Your task to perform on an android device: snooze an email in the gmail app Image 0: 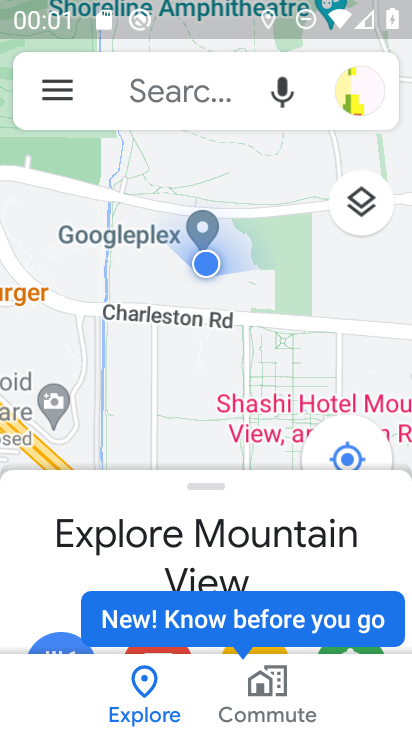
Step 0: press home button
Your task to perform on an android device: snooze an email in the gmail app Image 1: 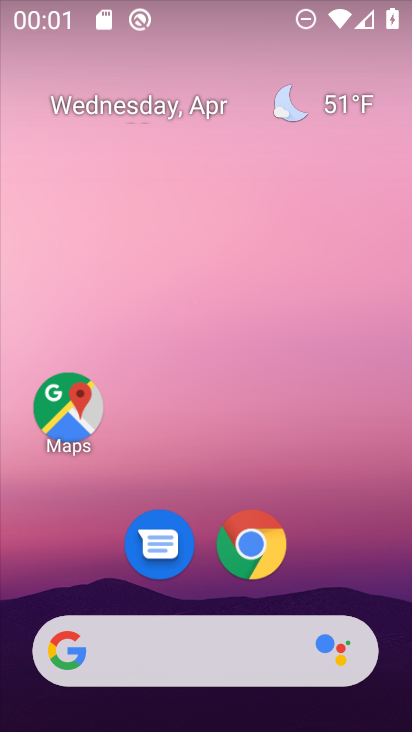
Step 1: drag from (349, 564) to (240, 32)
Your task to perform on an android device: snooze an email in the gmail app Image 2: 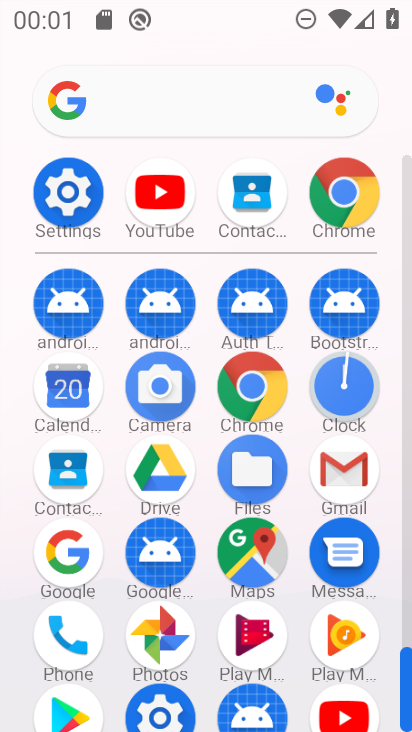
Step 2: click (330, 481)
Your task to perform on an android device: snooze an email in the gmail app Image 3: 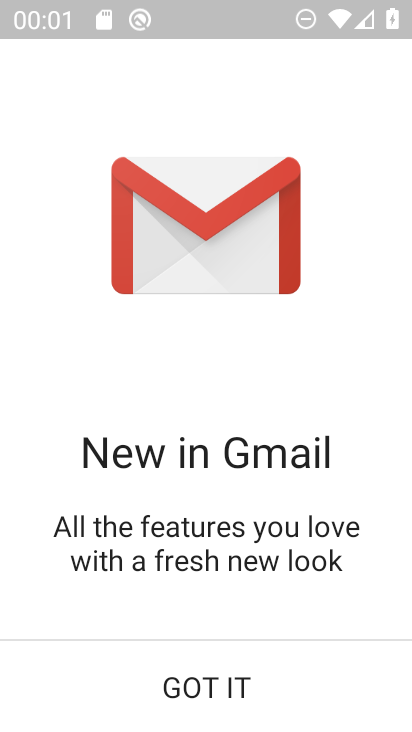
Step 3: click (262, 682)
Your task to perform on an android device: snooze an email in the gmail app Image 4: 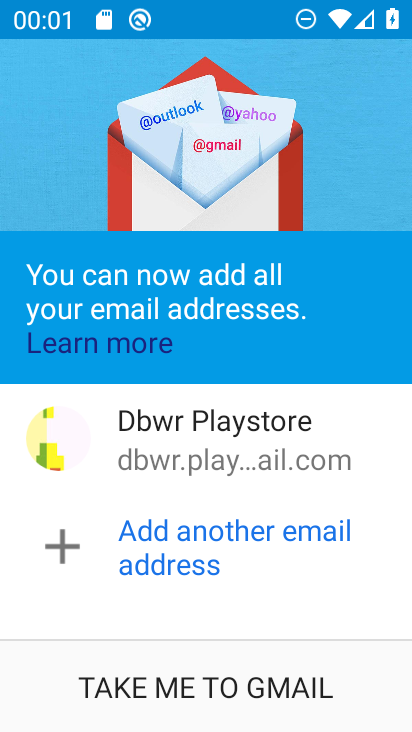
Step 4: click (263, 682)
Your task to perform on an android device: snooze an email in the gmail app Image 5: 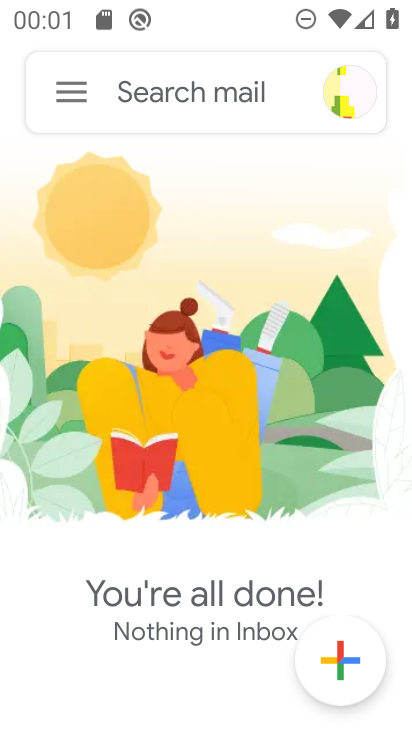
Step 5: click (72, 90)
Your task to perform on an android device: snooze an email in the gmail app Image 6: 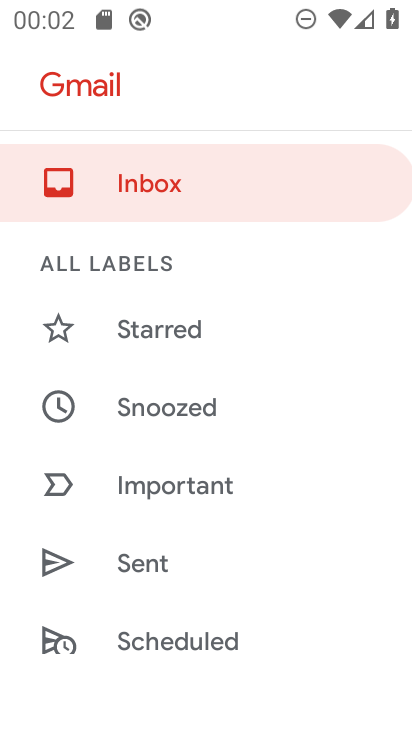
Step 6: drag from (317, 562) to (336, 360)
Your task to perform on an android device: snooze an email in the gmail app Image 7: 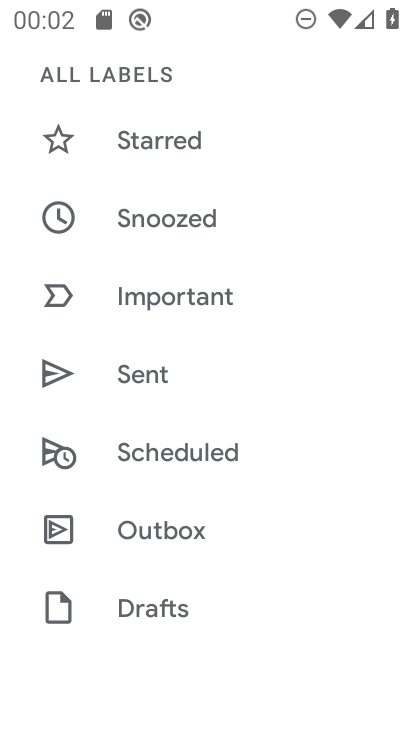
Step 7: drag from (302, 571) to (330, 364)
Your task to perform on an android device: snooze an email in the gmail app Image 8: 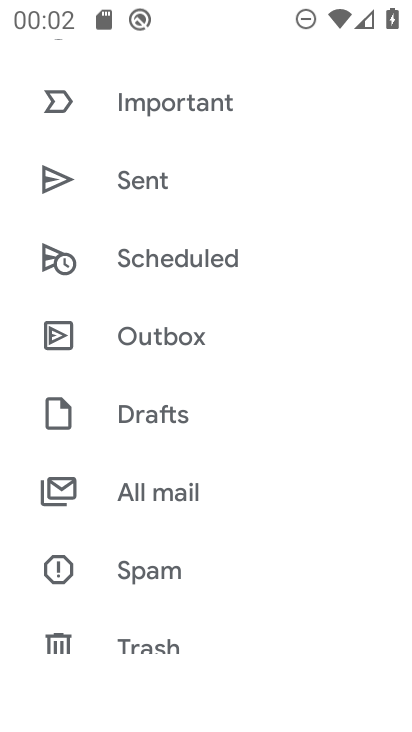
Step 8: drag from (275, 496) to (299, 307)
Your task to perform on an android device: snooze an email in the gmail app Image 9: 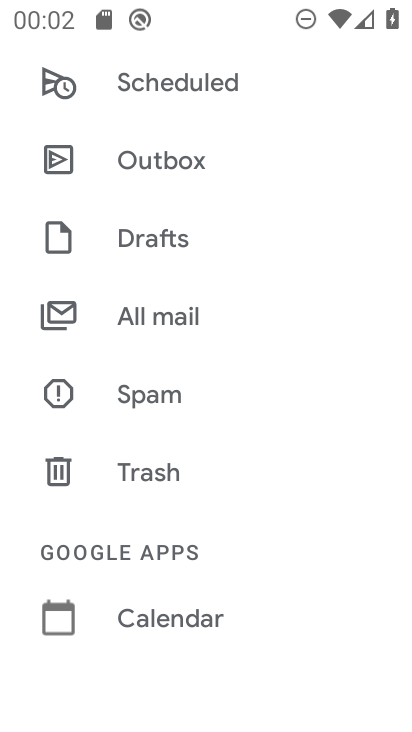
Step 9: drag from (336, 553) to (323, 288)
Your task to perform on an android device: snooze an email in the gmail app Image 10: 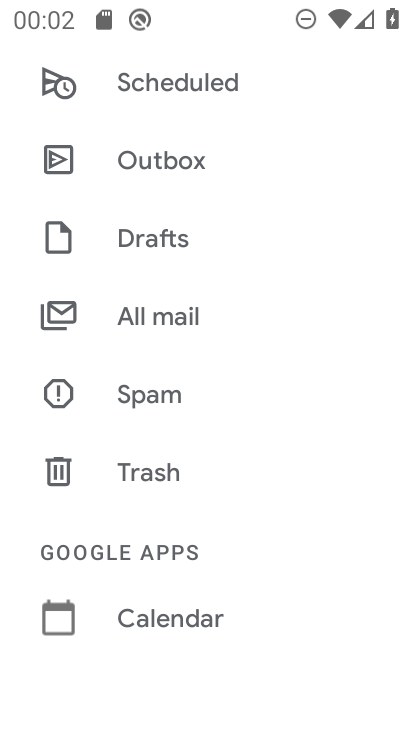
Step 10: drag from (333, 233) to (391, 505)
Your task to perform on an android device: snooze an email in the gmail app Image 11: 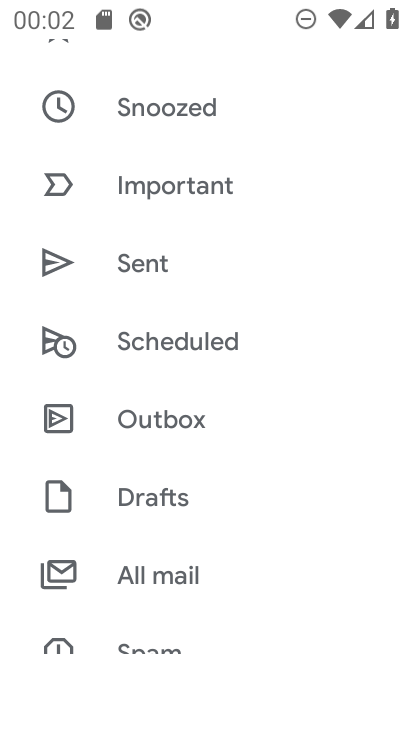
Step 11: drag from (362, 308) to (360, 514)
Your task to perform on an android device: snooze an email in the gmail app Image 12: 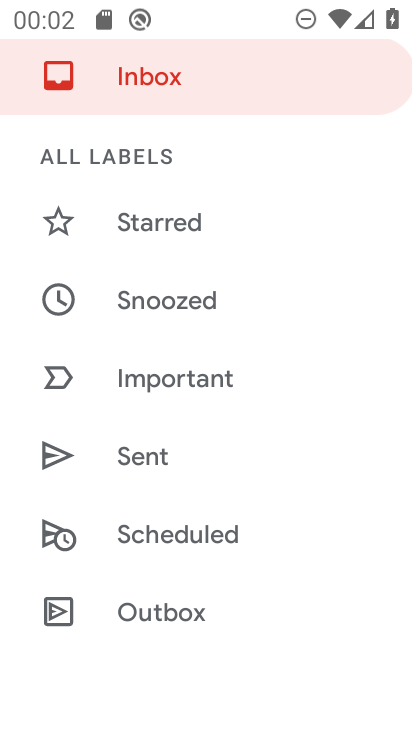
Step 12: drag from (328, 304) to (337, 464)
Your task to perform on an android device: snooze an email in the gmail app Image 13: 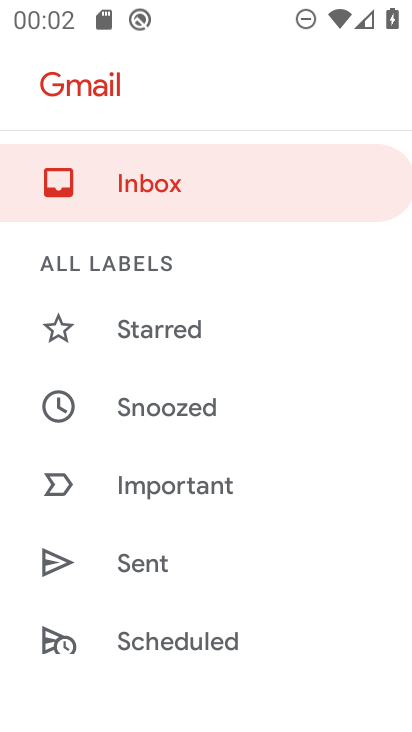
Step 13: click (201, 410)
Your task to perform on an android device: snooze an email in the gmail app Image 14: 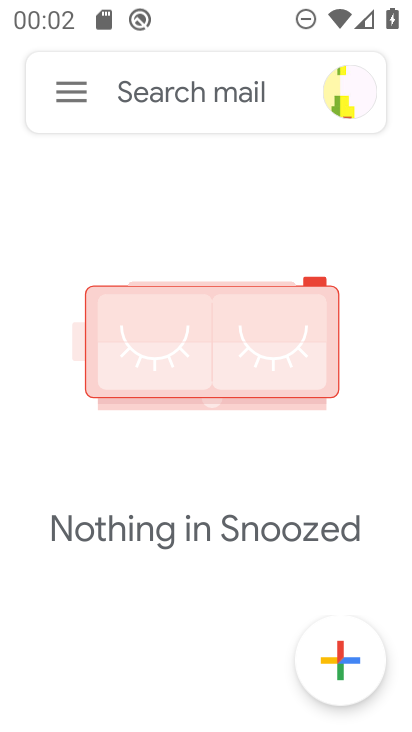
Step 14: task complete